Your task to perform on an android device: Open Google Maps and go to "Timeline" Image 0: 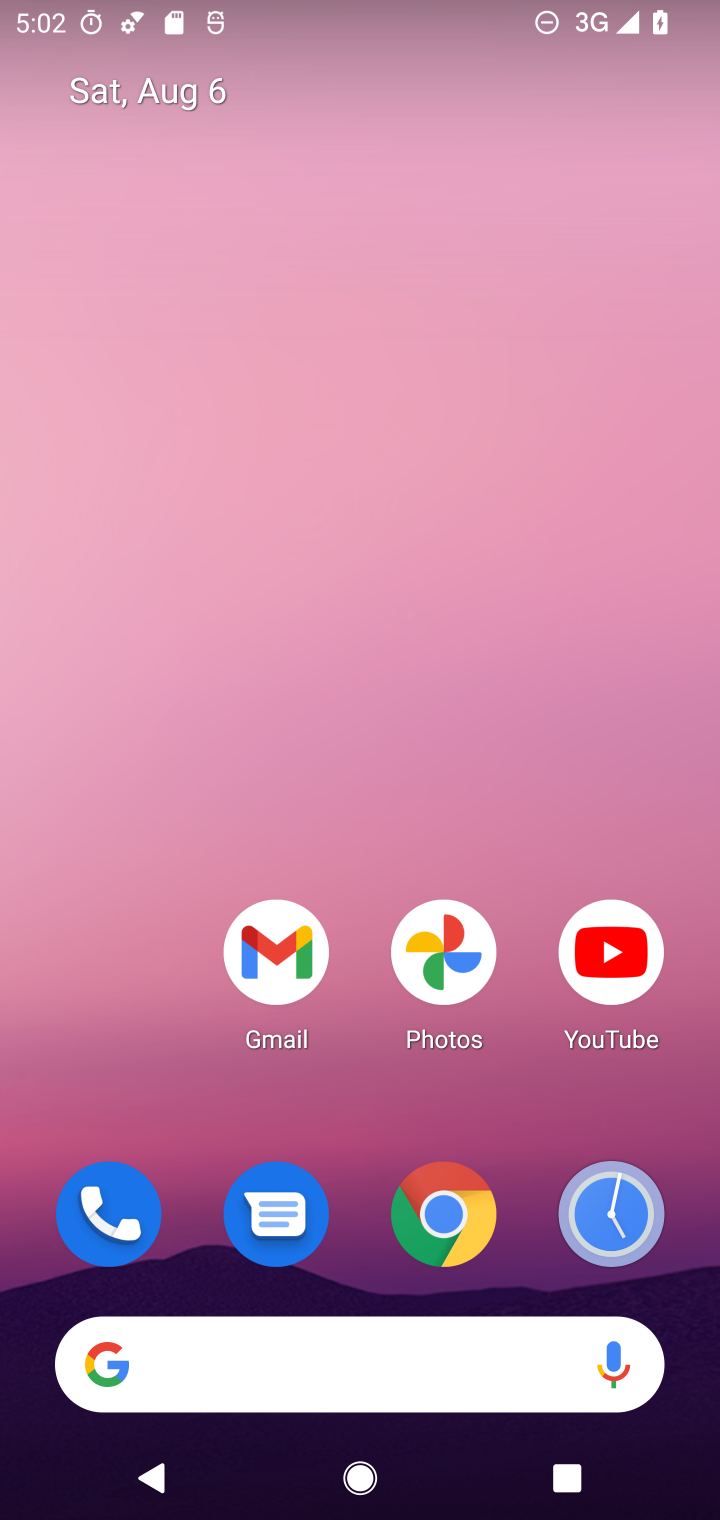
Step 0: click (323, 25)
Your task to perform on an android device: Open Google Maps and go to "Timeline" Image 1: 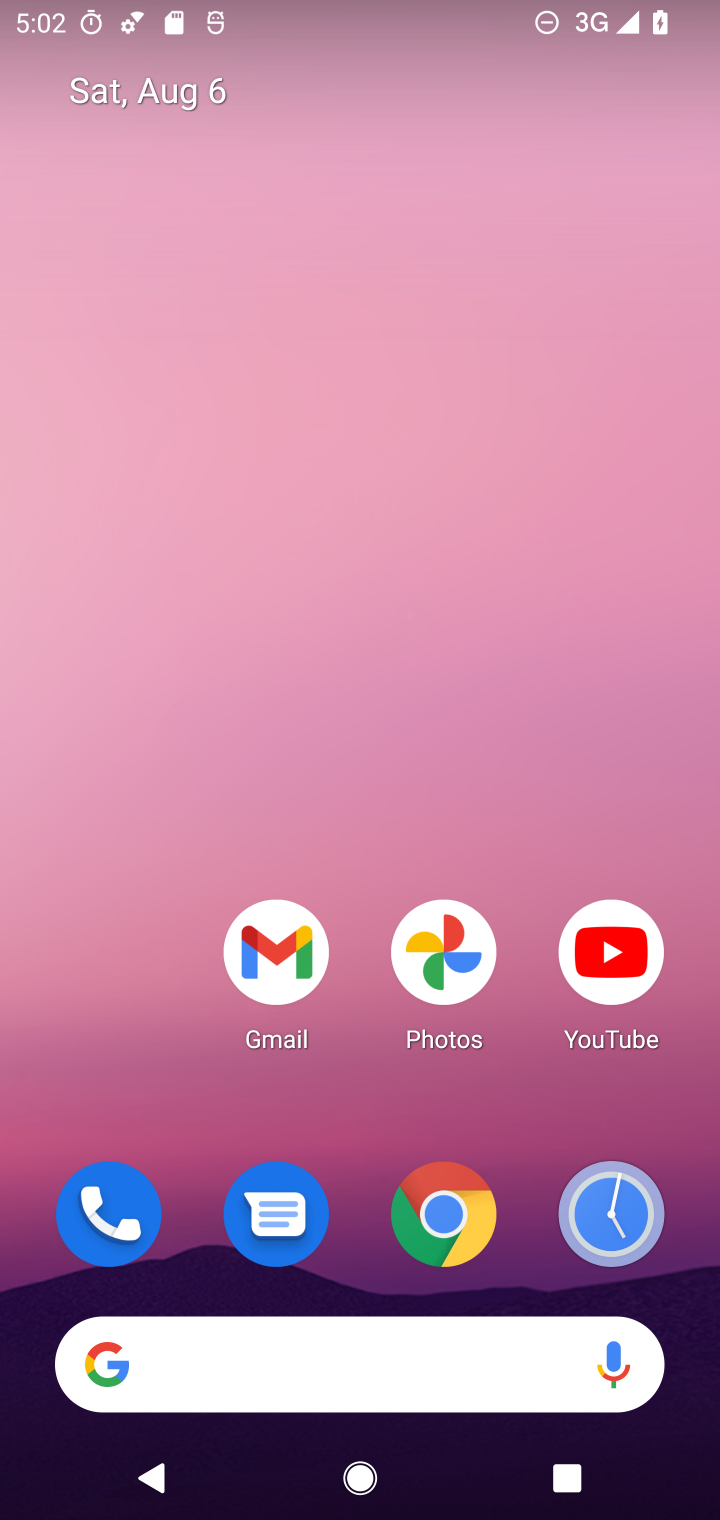
Step 1: drag from (322, 1219) to (342, 146)
Your task to perform on an android device: Open Google Maps and go to "Timeline" Image 2: 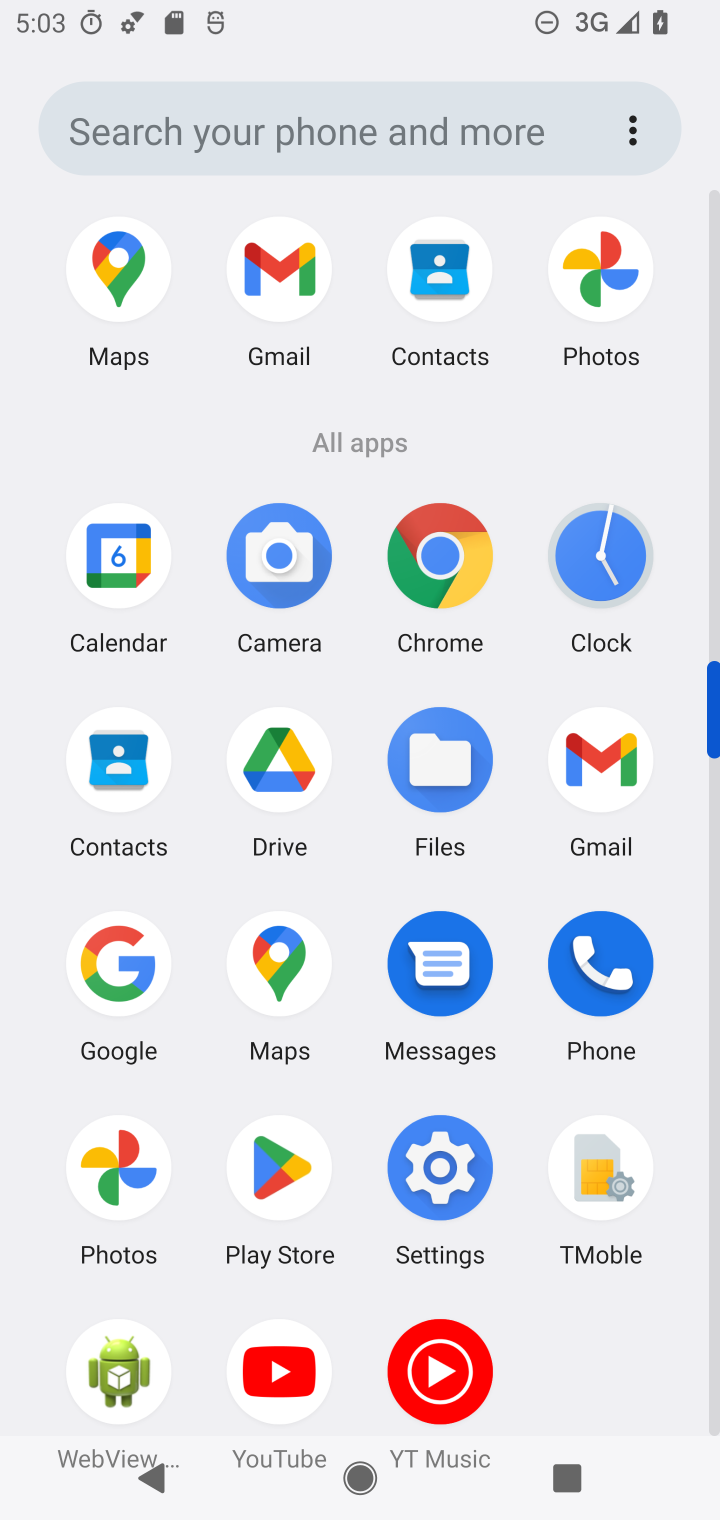
Step 2: click (285, 994)
Your task to perform on an android device: Open Google Maps and go to "Timeline" Image 3: 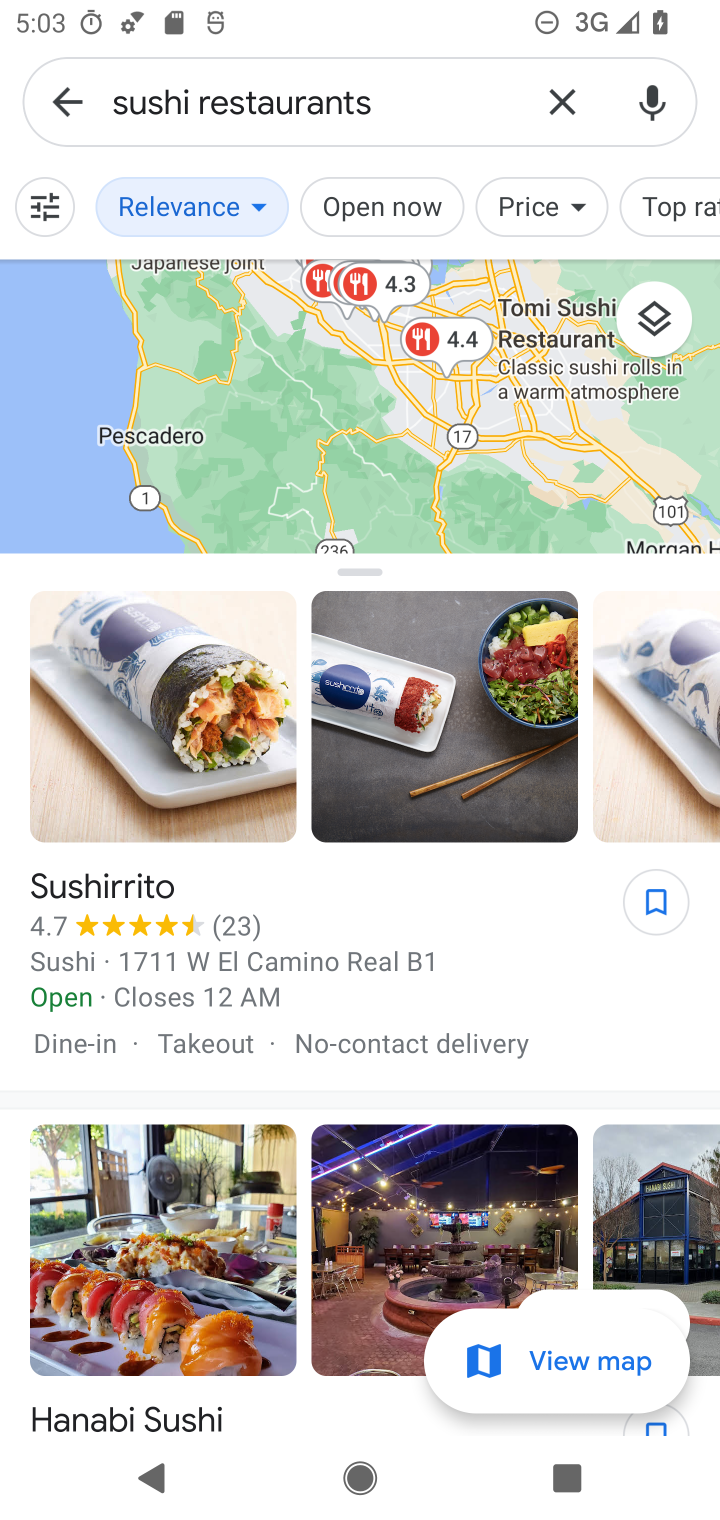
Step 3: click (53, 91)
Your task to perform on an android device: Open Google Maps and go to "Timeline" Image 4: 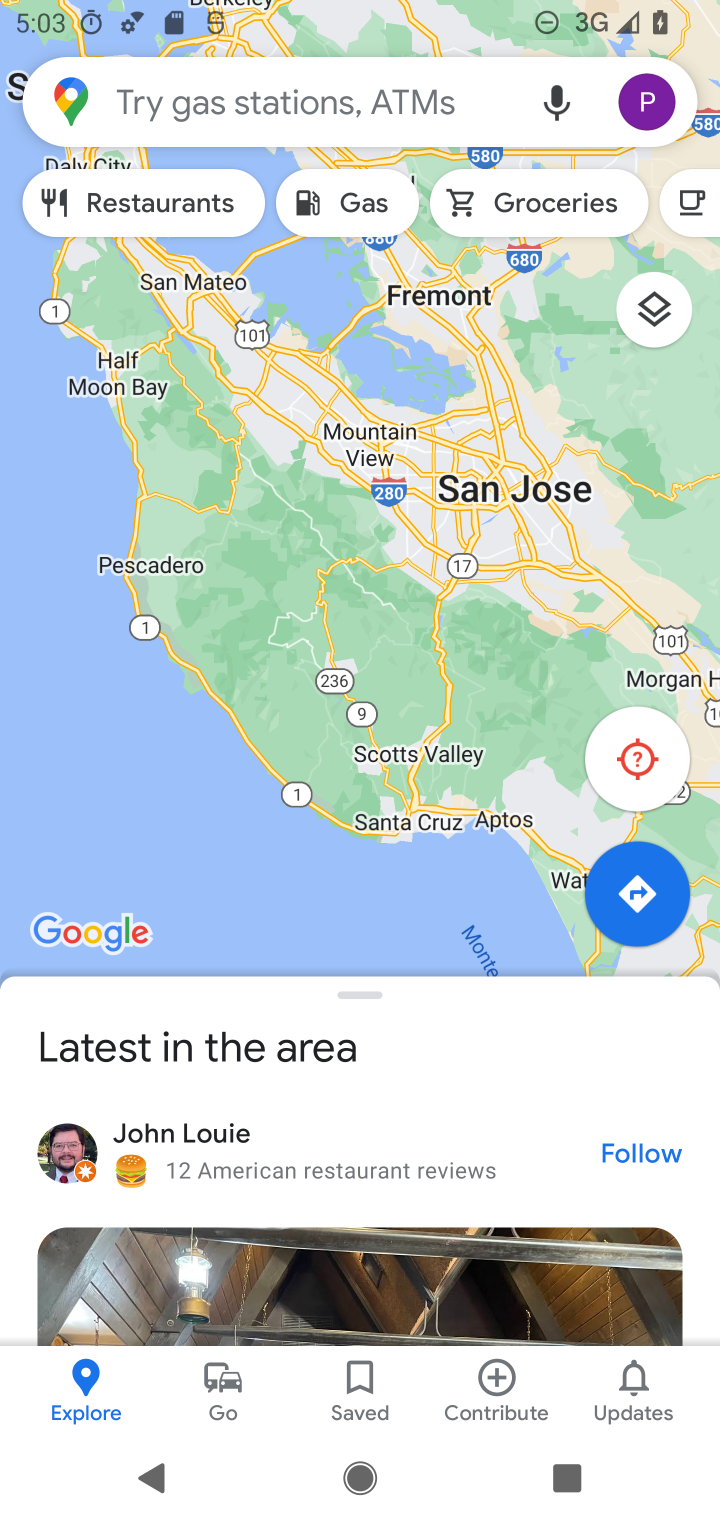
Step 4: click (650, 105)
Your task to perform on an android device: Open Google Maps and go to "Timeline" Image 5: 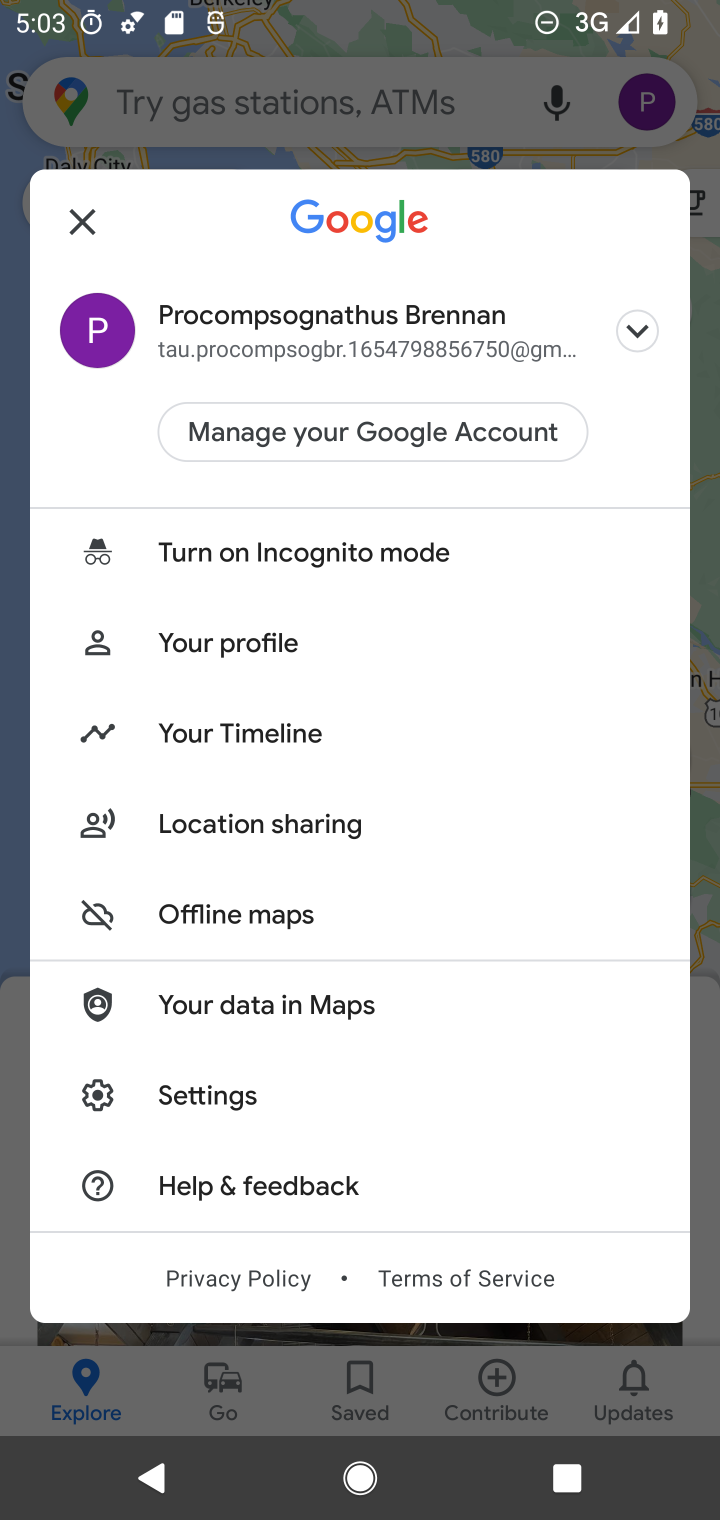
Step 5: click (233, 736)
Your task to perform on an android device: Open Google Maps and go to "Timeline" Image 6: 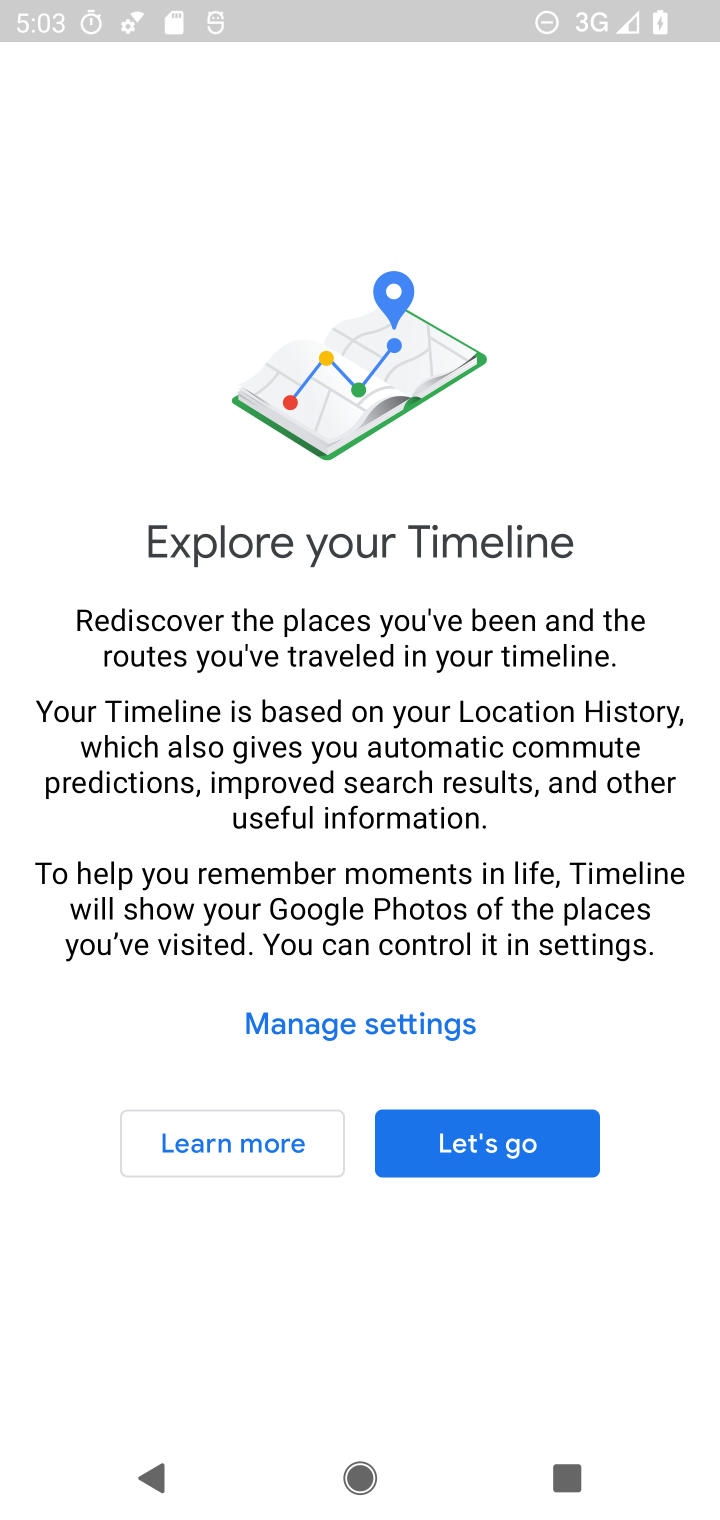
Step 6: click (452, 1135)
Your task to perform on an android device: Open Google Maps and go to "Timeline" Image 7: 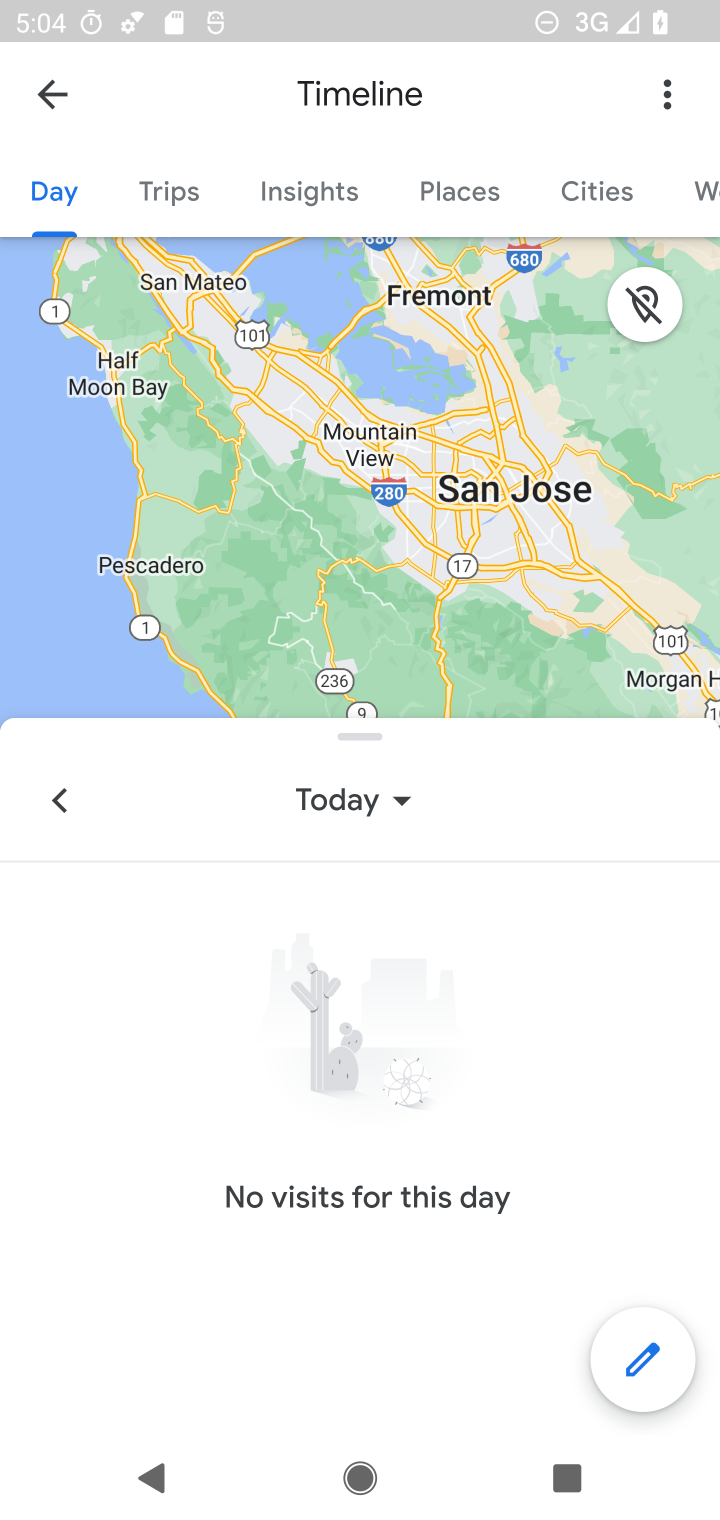
Step 7: task complete